Your task to perform on an android device: refresh tabs in the chrome app Image 0: 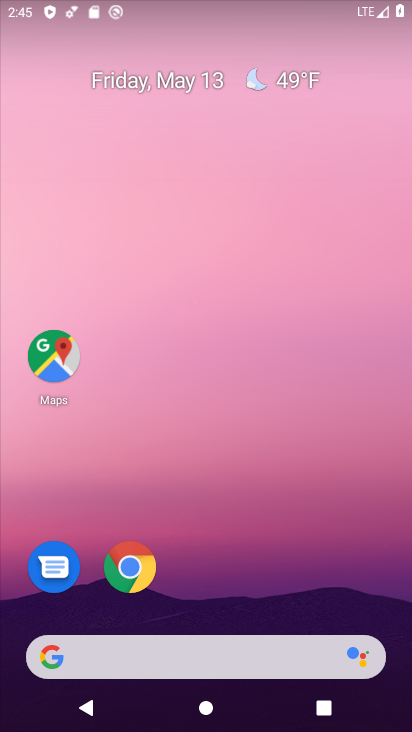
Step 0: drag from (222, 616) to (169, 16)
Your task to perform on an android device: refresh tabs in the chrome app Image 1: 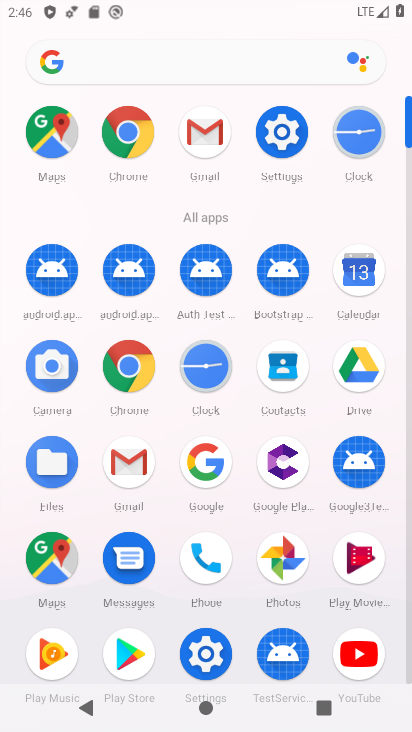
Step 1: click (133, 154)
Your task to perform on an android device: refresh tabs in the chrome app Image 2: 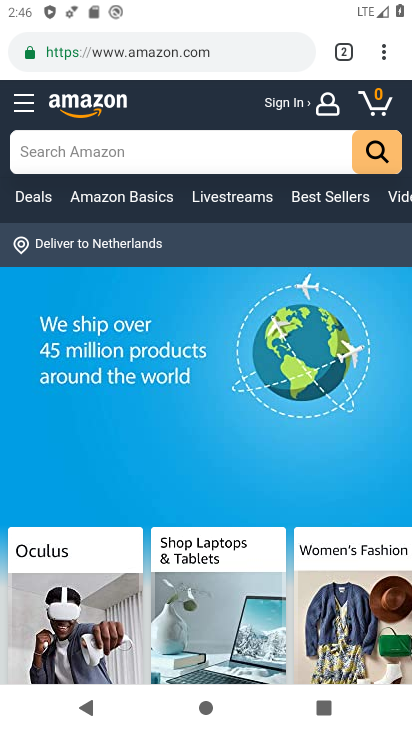
Step 2: click (386, 55)
Your task to perform on an android device: refresh tabs in the chrome app Image 3: 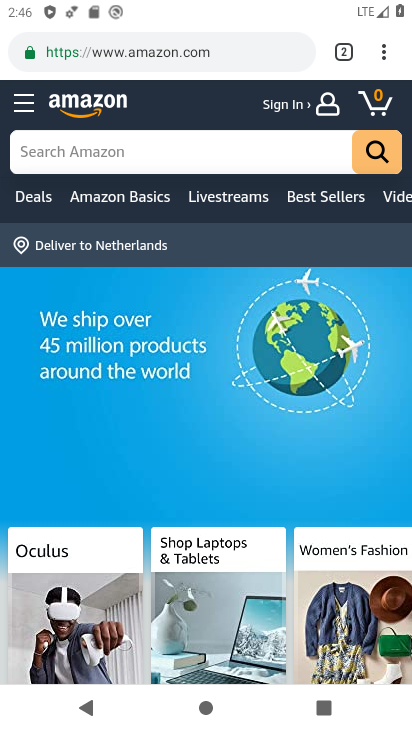
Step 3: click (378, 48)
Your task to perform on an android device: refresh tabs in the chrome app Image 4: 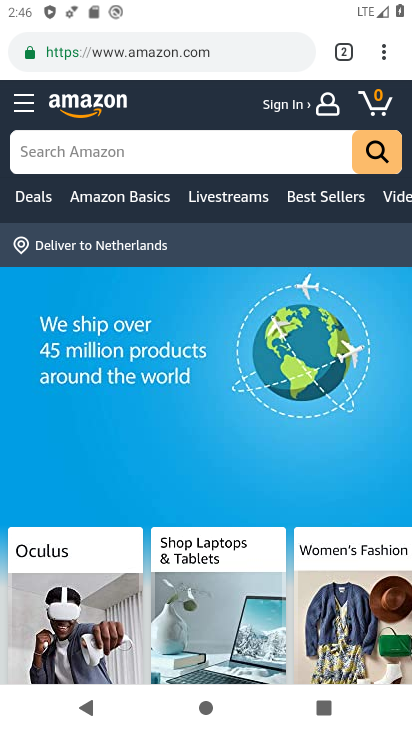
Step 4: task complete